Your task to perform on an android device: empty trash in google photos Image 0: 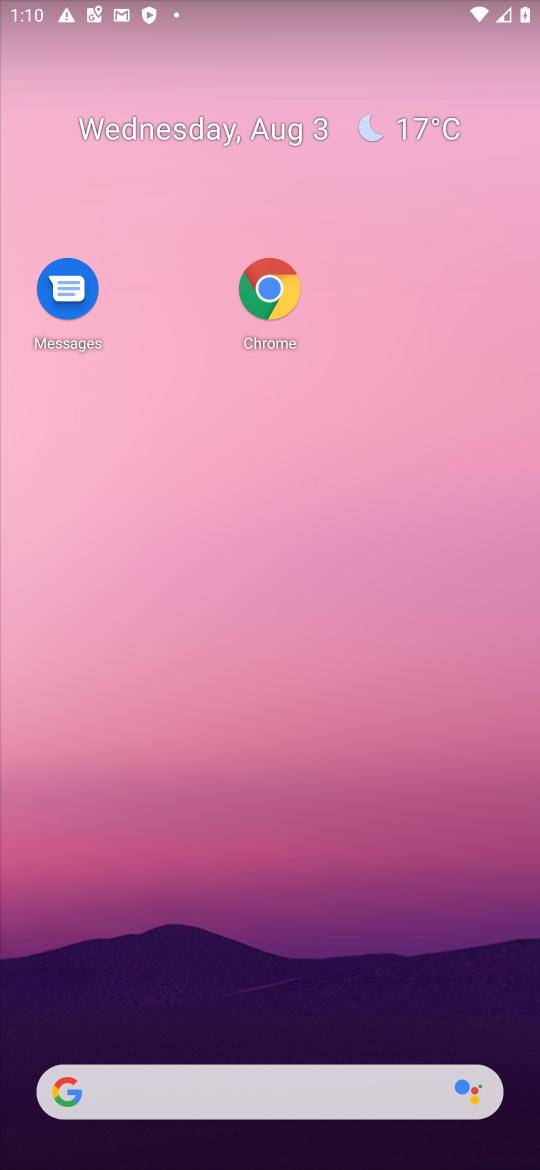
Step 0: drag from (301, 1037) to (296, 289)
Your task to perform on an android device: empty trash in google photos Image 1: 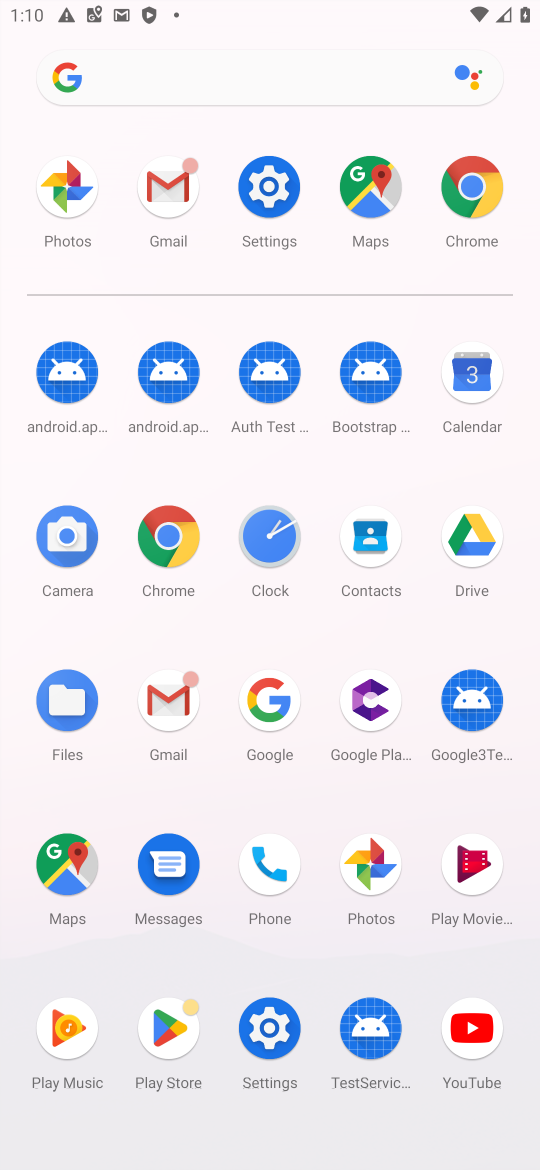
Step 1: click (354, 881)
Your task to perform on an android device: empty trash in google photos Image 2: 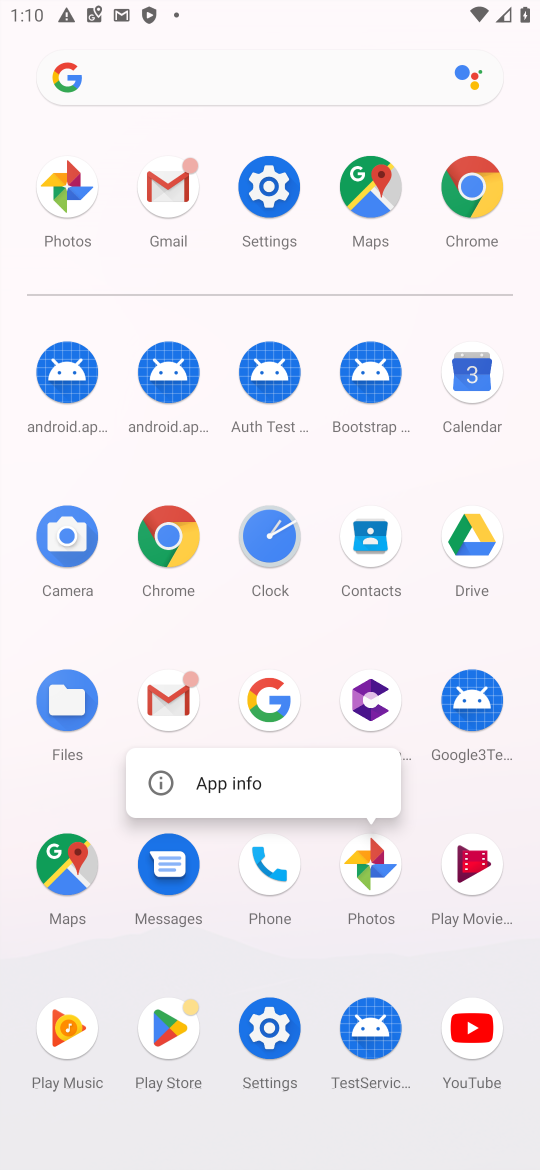
Step 2: click (388, 875)
Your task to perform on an android device: empty trash in google photos Image 3: 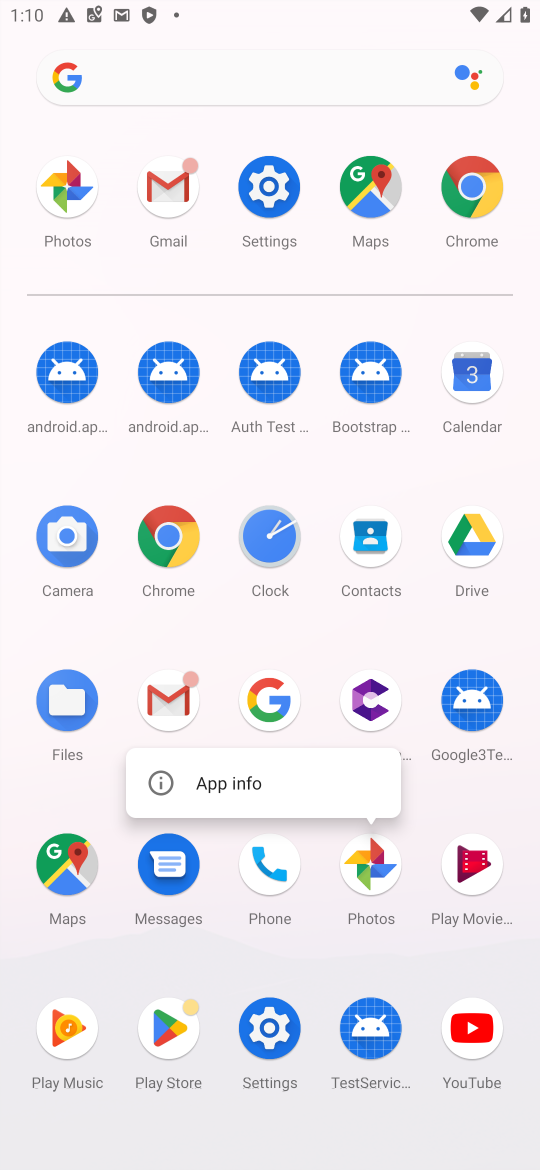
Step 3: click (388, 875)
Your task to perform on an android device: empty trash in google photos Image 4: 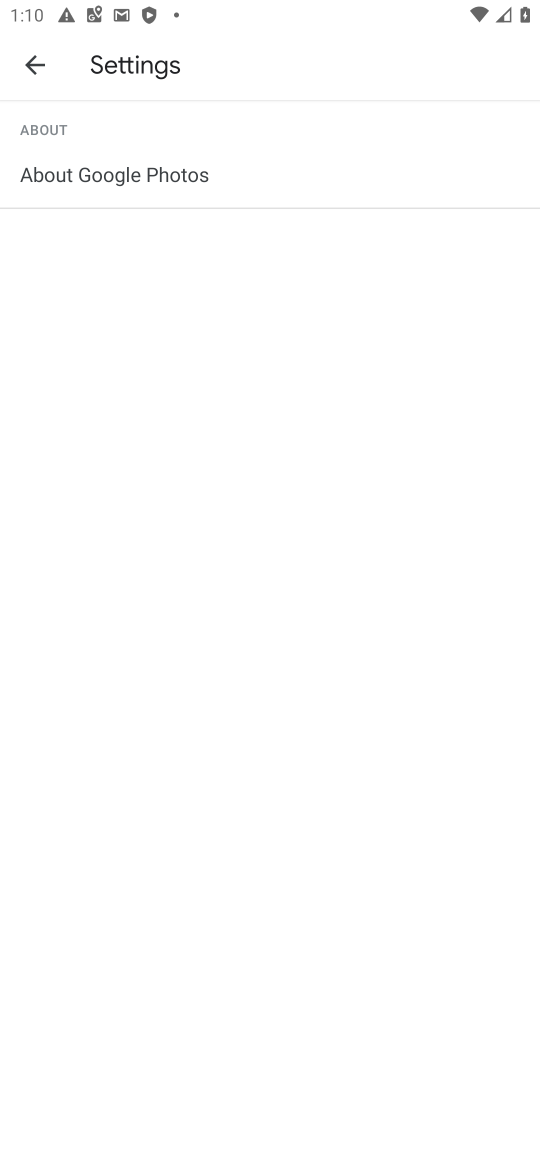
Step 4: click (14, 77)
Your task to perform on an android device: empty trash in google photos Image 5: 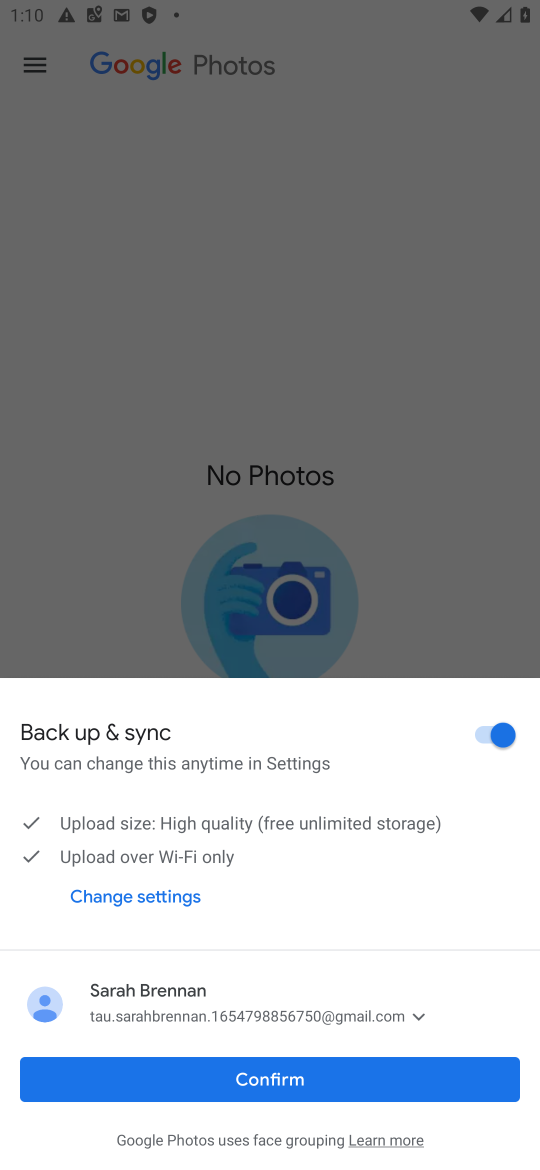
Step 5: click (515, 1081)
Your task to perform on an android device: empty trash in google photos Image 6: 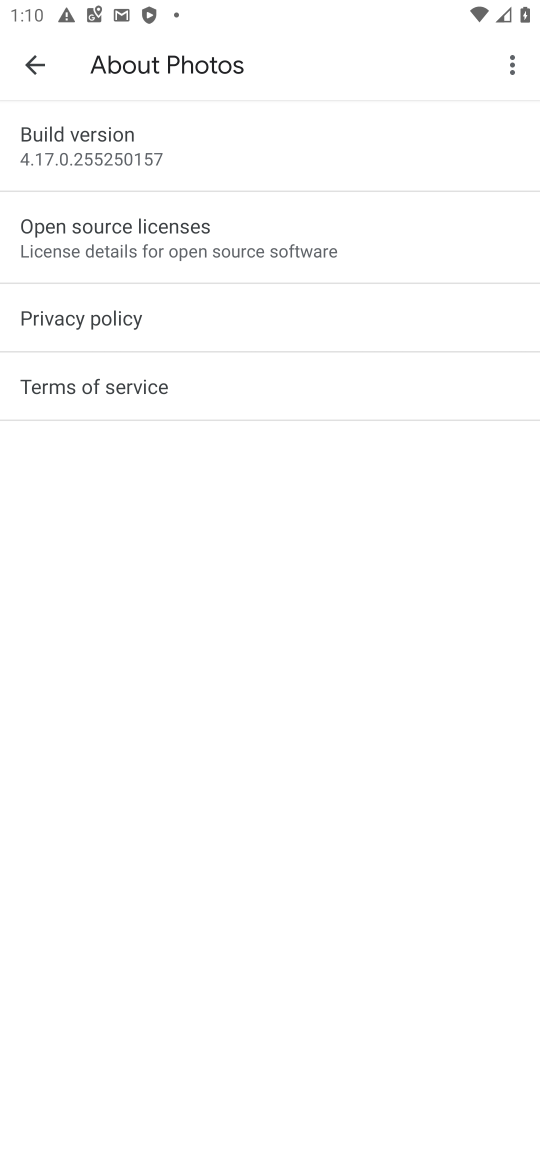
Step 6: click (72, 177)
Your task to perform on an android device: empty trash in google photos Image 7: 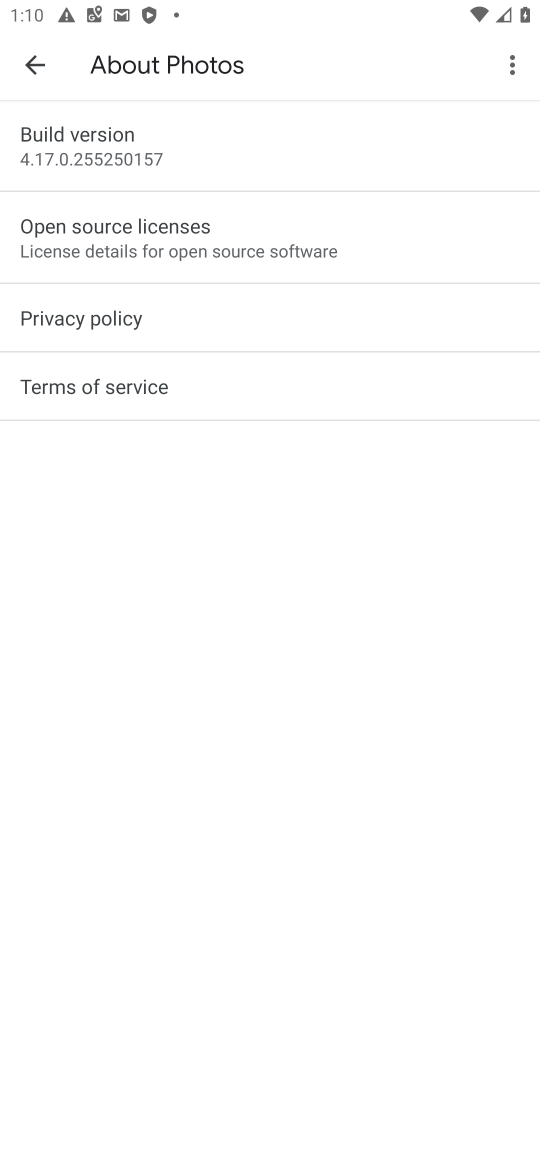
Step 7: task complete